Your task to perform on an android device: toggle notifications settings in the gmail app Image 0: 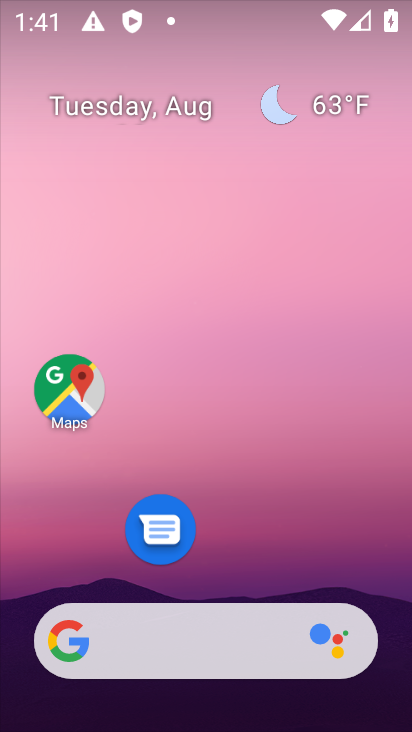
Step 0: drag from (228, 585) to (309, 7)
Your task to perform on an android device: toggle notifications settings in the gmail app Image 1: 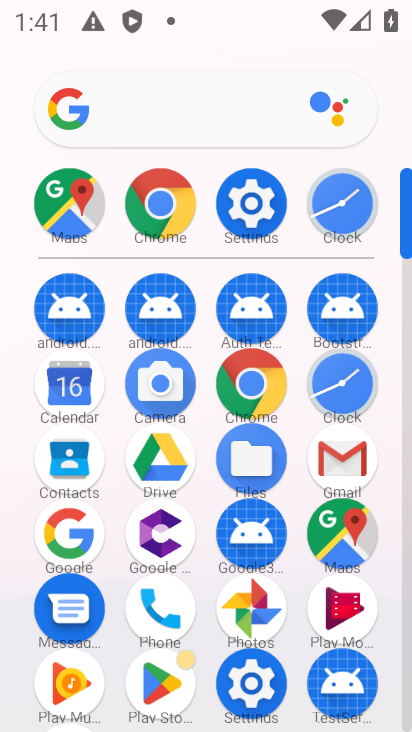
Step 1: click (255, 174)
Your task to perform on an android device: toggle notifications settings in the gmail app Image 2: 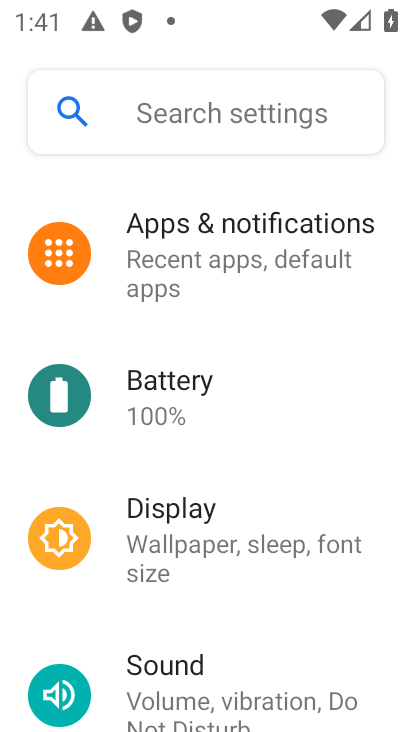
Step 2: click (206, 286)
Your task to perform on an android device: toggle notifications settings in the gmail app Image 3: 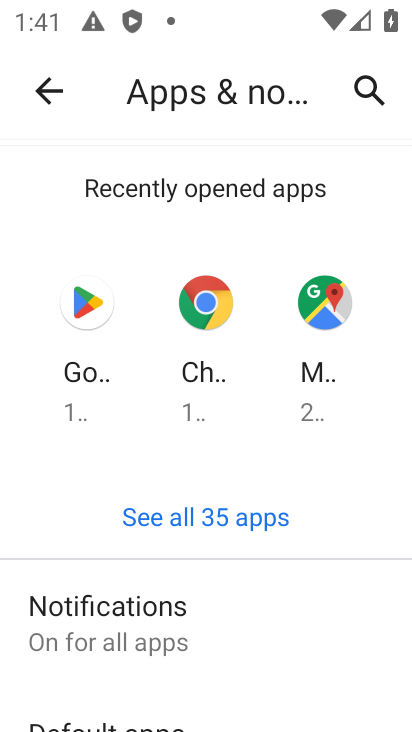
Step 3: task complete